Your task to perform on an android device: Go to Yahoo.com Image 0: 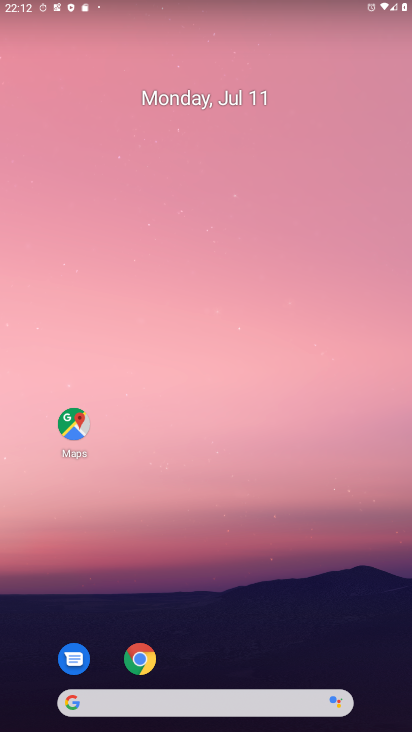
Step 0: drag from (200, 713) to (208, 11)
Your task to perform on an android device: Go to Yahoo.com Image 1: 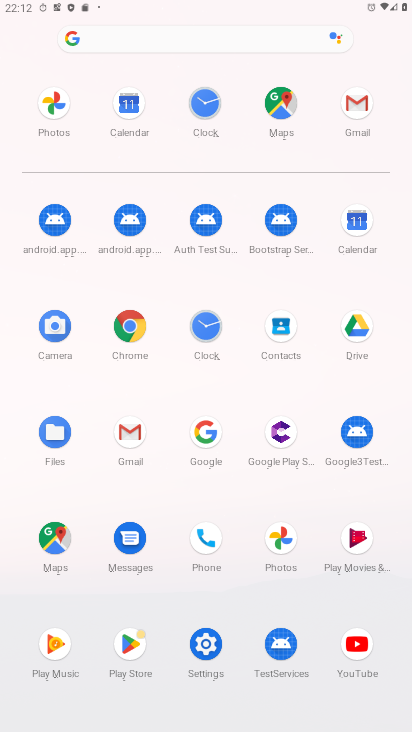
Step 1: click (126, 326)
Your task to perform on an android device: Go to Yahoo.com Image 2: 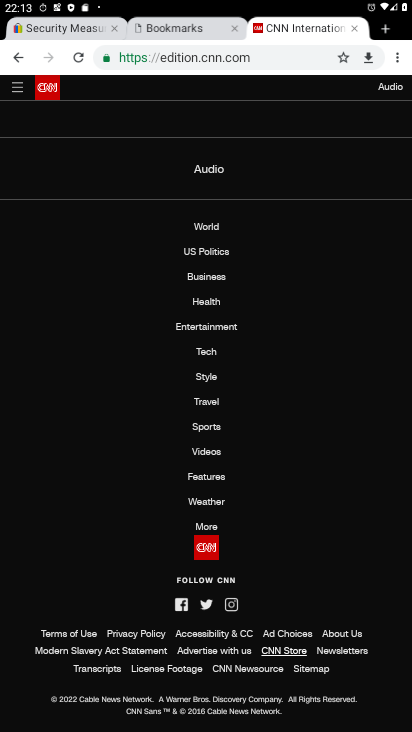
Step 2: click (245, 50)
Your task to perform on an android device: Go to Yahoo.com Image 3: 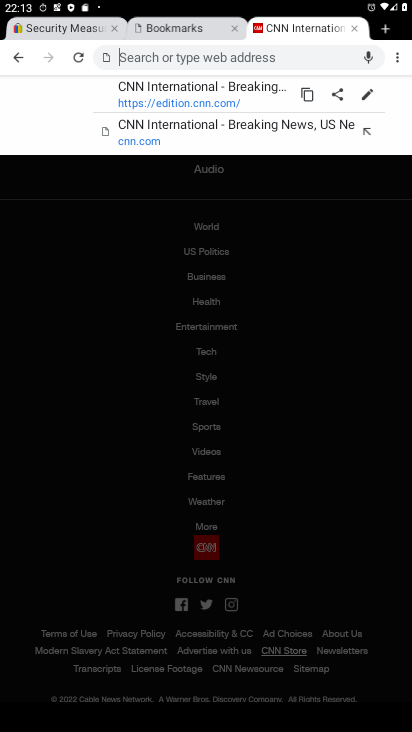
Step 3: type "yahoo.com"
Your task to perform on an android device: Go to Yahoo.com Image 4: 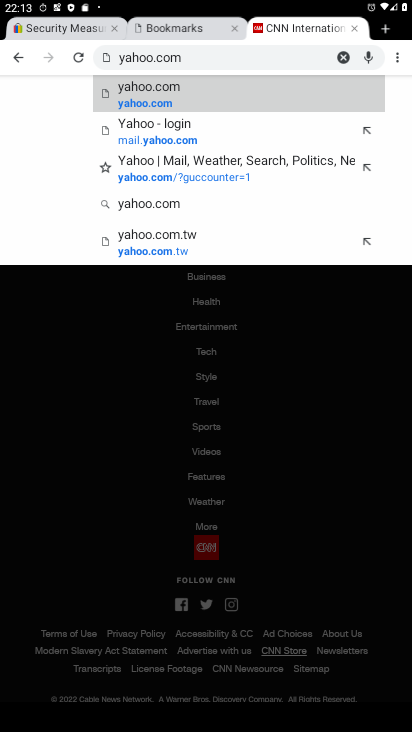
Step 4: click (136, 99)
Your task to perform on an android device: Go to Yahoo.com Image 5: 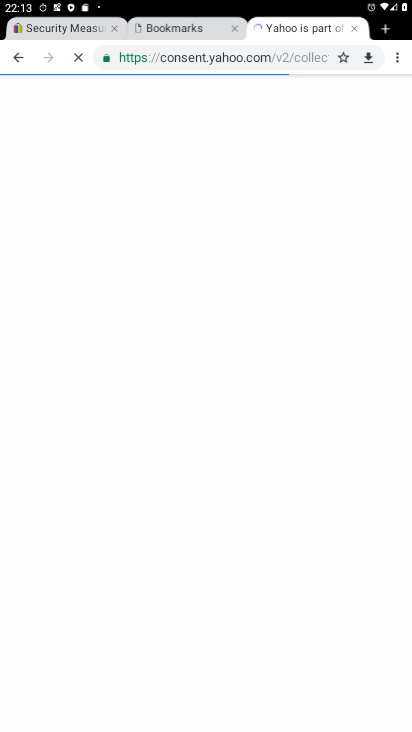
Step 5: task complete